Your task to perform on an android device: Open battery settings Image 0: 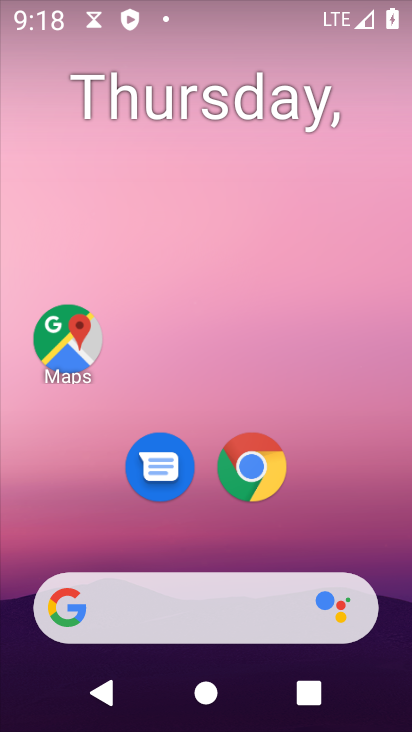
Step 0: drag from (350, 522) to (354, 63)
Your task to perform on an android device: Open battery settings Image 1: 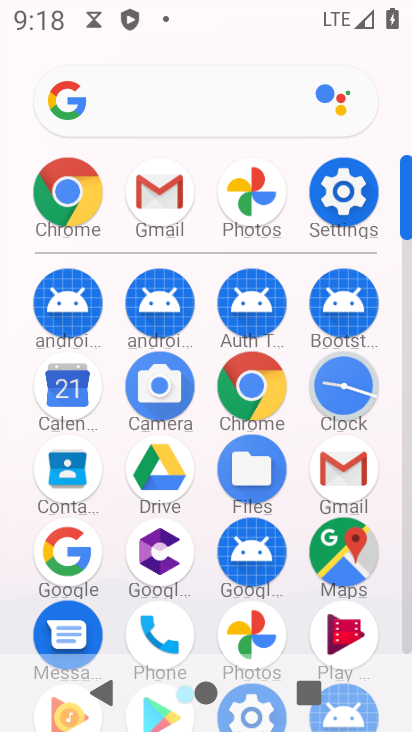
Step 1: click (342, 198)
Your task to perform on an android device: Open battery settings Image 2: 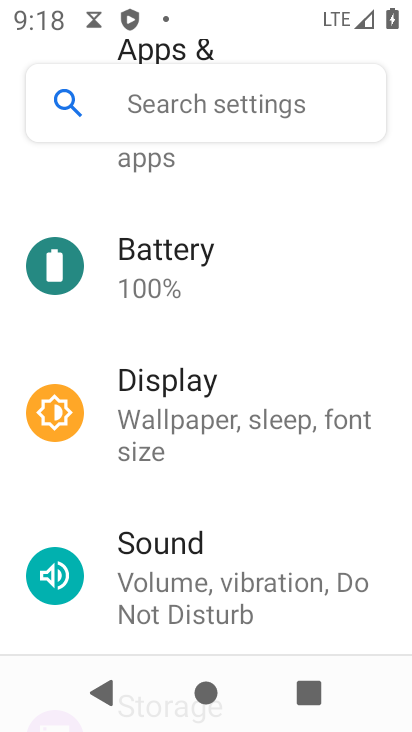
Step 2: click (270, 271)
Your task to perform on an android device: Open battery settings Image 3: 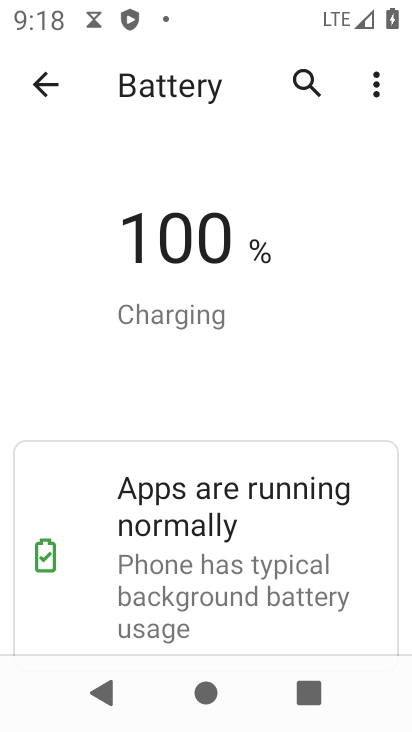
Step 3: task complete